Your task to perform on an android device: check battery use Image 0: 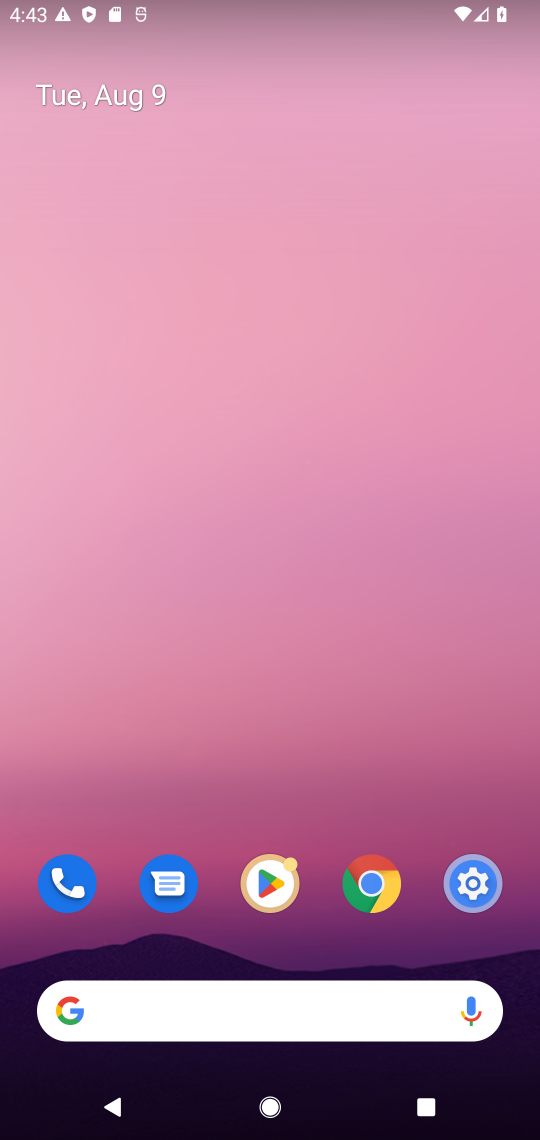
Step 0: drag from (245, 607) to (245, 153)
Your task to perform on an android device: check battery use Image 1: 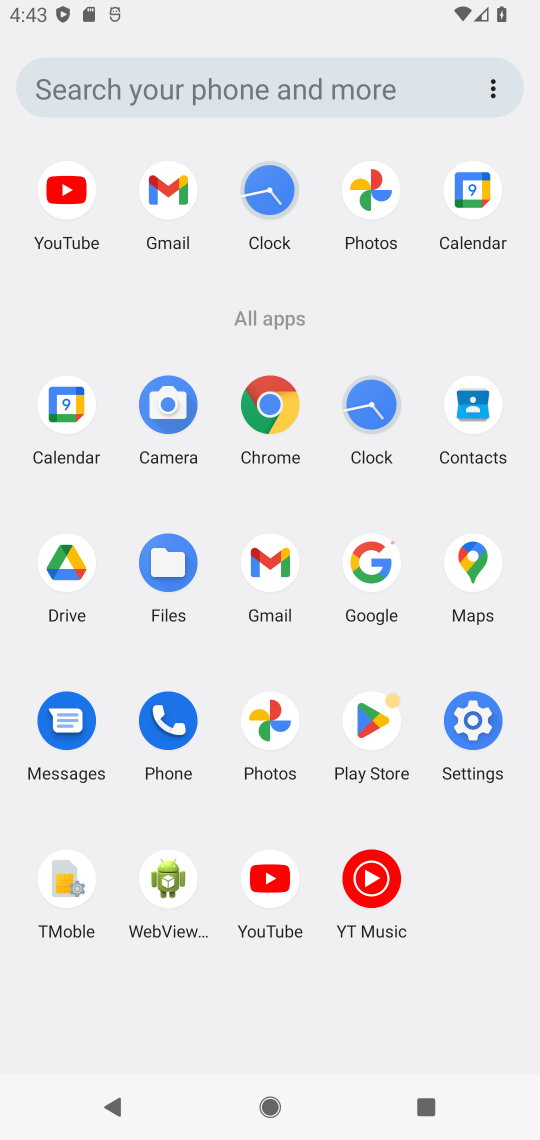
Step 1: click (476, 732)
Your task to perform on an android device: check battery use Image 2: 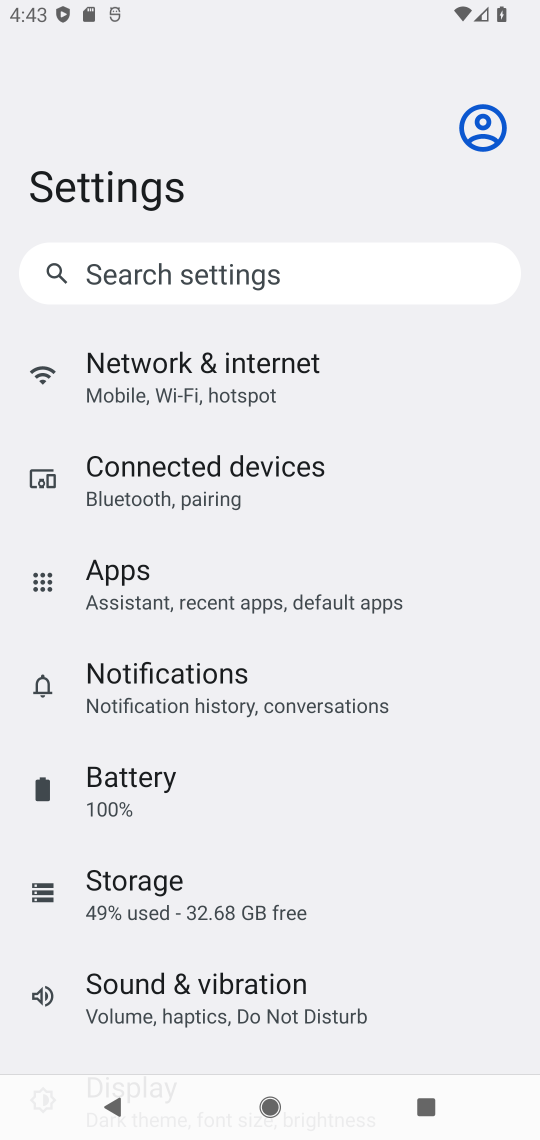
Step 2: click (242, 800)
Your task to perform on an android device: check battery use Image 3: 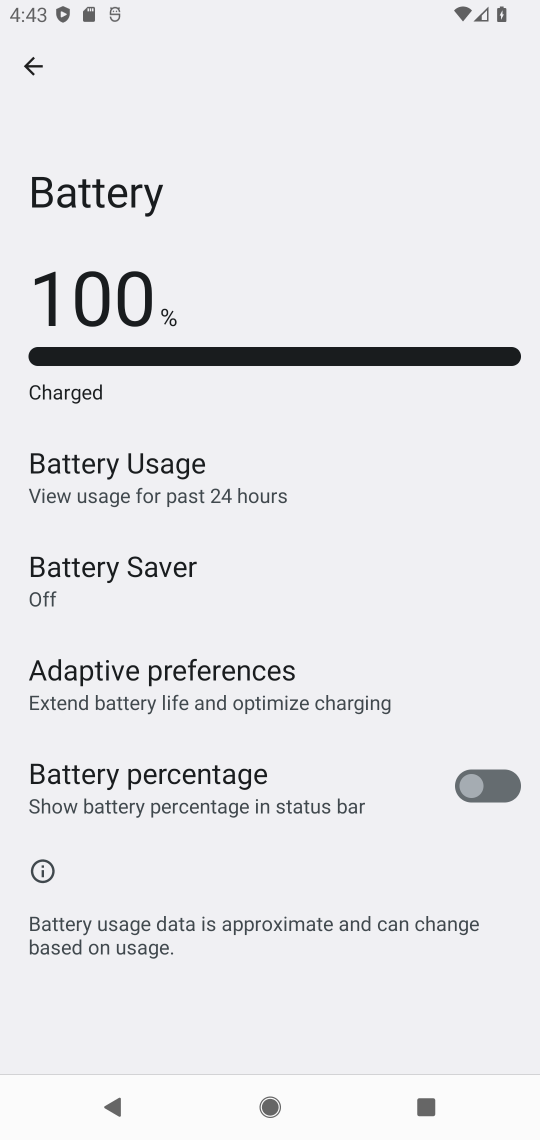
Step 3: click (213, 502)
Your task to perform on an android device: check battery use Image 4: 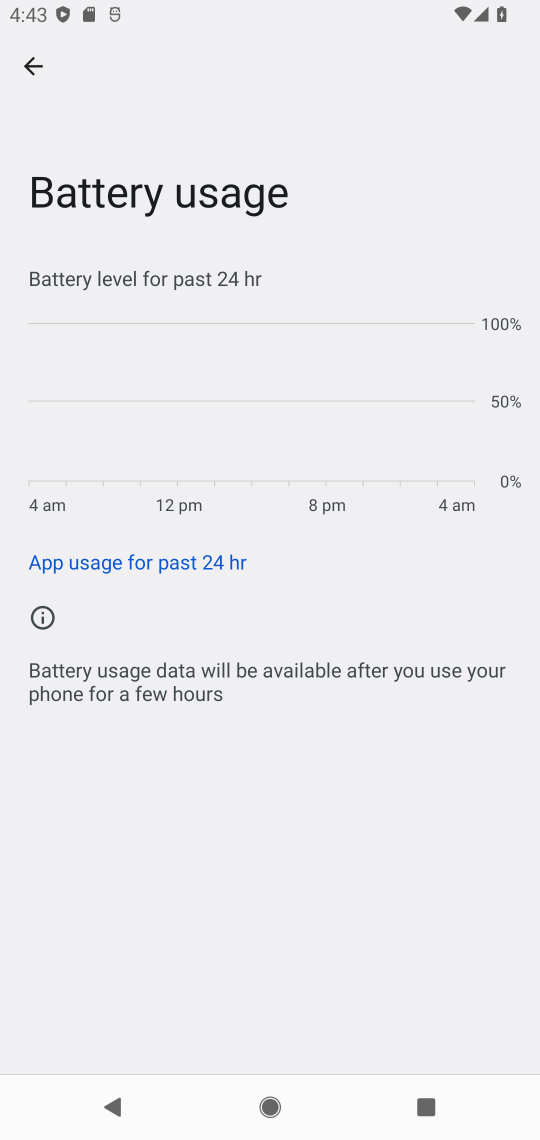
Step 4: task complete